Your task to perform on an android device: Empty the shopping cart on amazon. Add panasonic triple a to the cart on amazon Image 0: 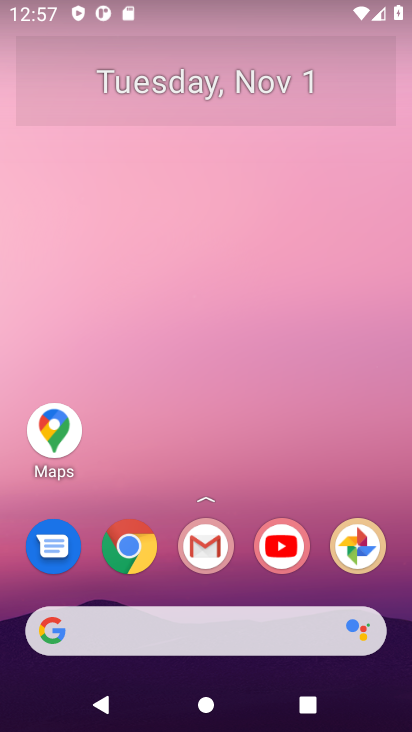
Step 0: click (61, 634)
Your task to perform on an android device: Empty the shopping cart on amazon. Add panasonic triple a to the cart on amazon Image 1: 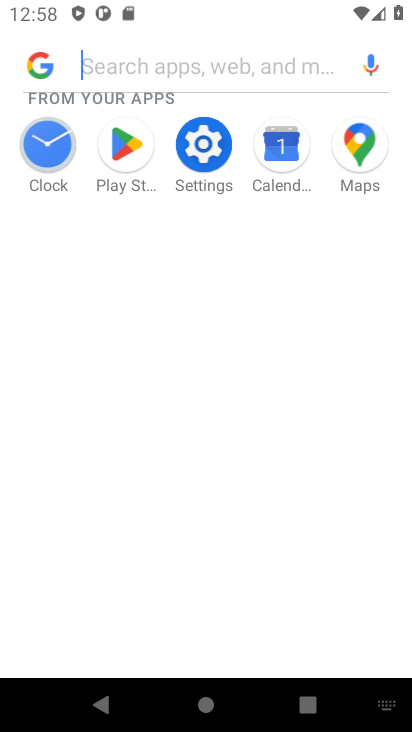
Step 1: type "amazon"
Your task to perform on an android device: Empty the shopping cart on amazon. Add panasonic triple a to the cart on amazon Image 2: 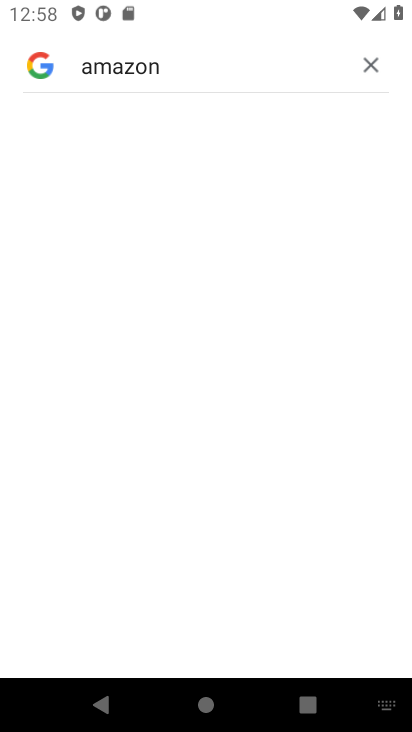
Step 2: press home button
Your task to perform on an android device: Empty the shopping cart on amazon. Add panasonic triple a to the cart on amazon Image 3: 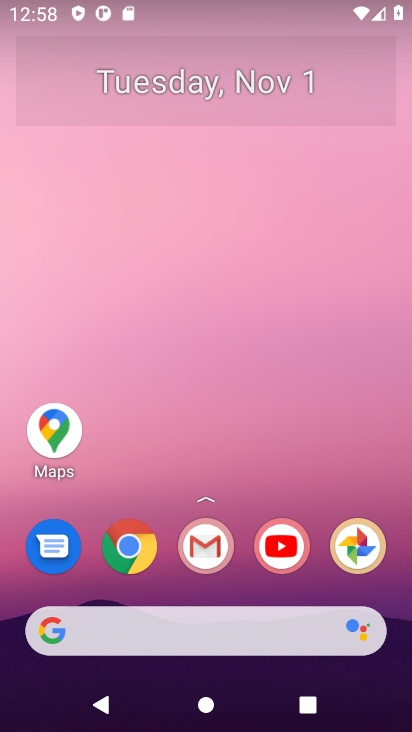
Step 3: click (136, 545)
Your task to perform on an android device: Empty the shopping cart on amazon. Add panasonic triple a to the cart on amazon Image 4: 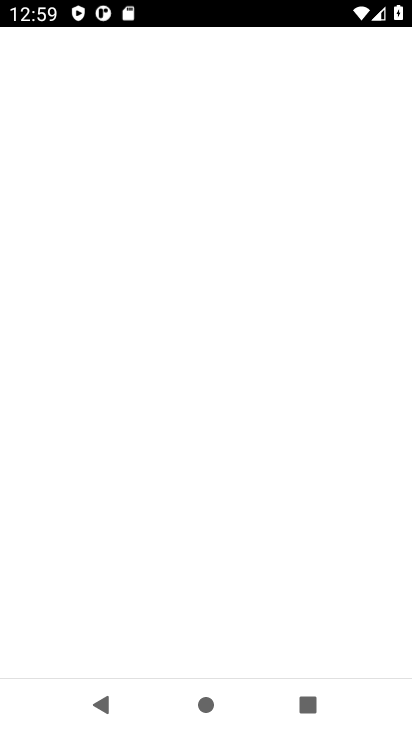
Step 4: task complete